Your task to perform on an android device: Do I have any events today? Image 0: 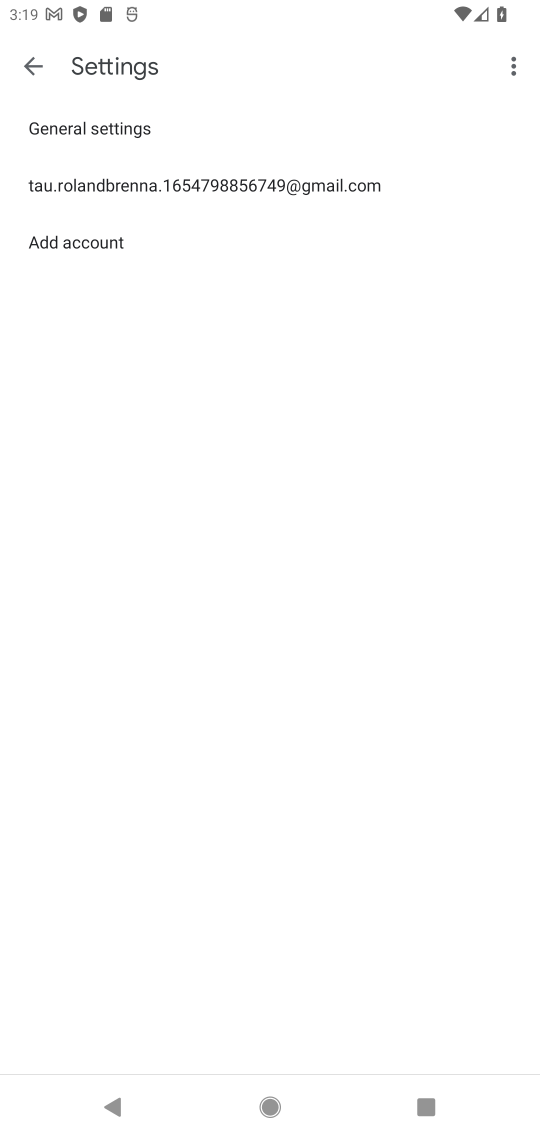
Step 0: press home button
Your task to perform on an android device: Do I have any events today? Image 1: 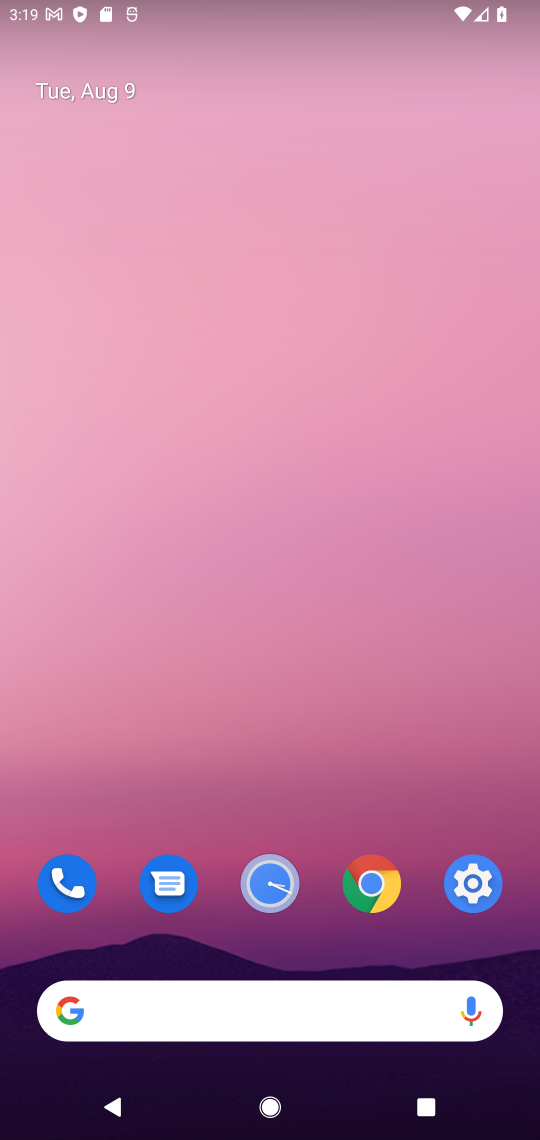
Step 1: drag from (328, 965) to (279, 327)
Your task to perform on an android device: Do I have any events today? Image 2: 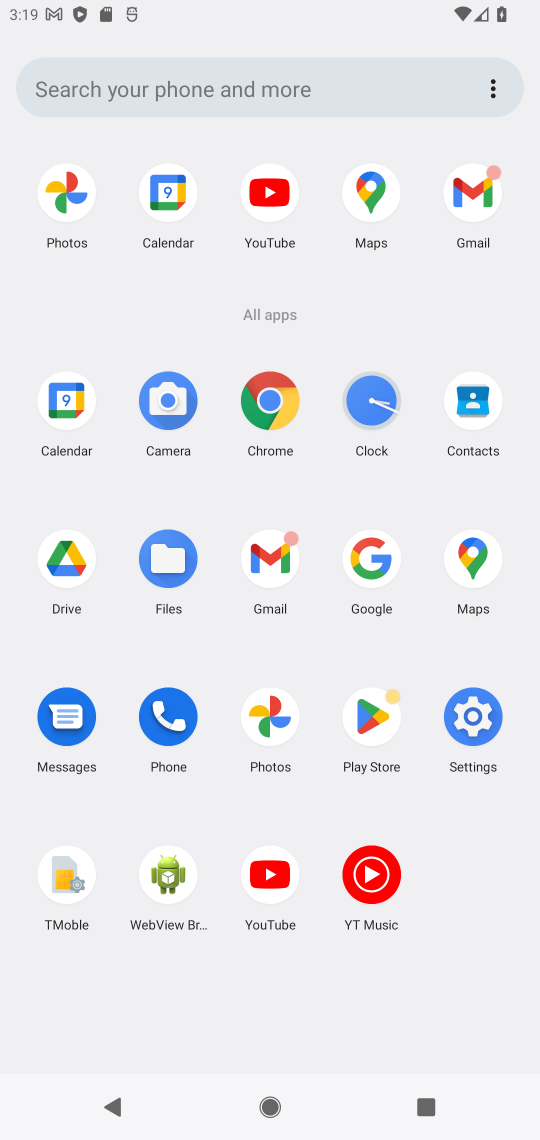
Step 2: click (62, 402)
Your task to perform on an android device: Do I have any events today? Image 3: 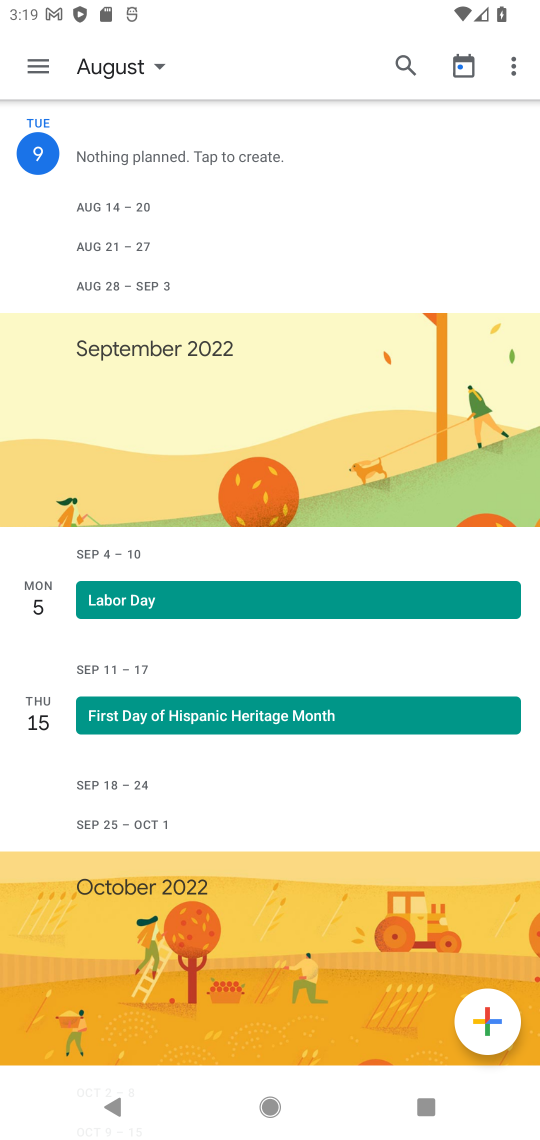
Step 3: click (27, 65)
Your task to perform on an android device: Do I have any events today? Image 4: 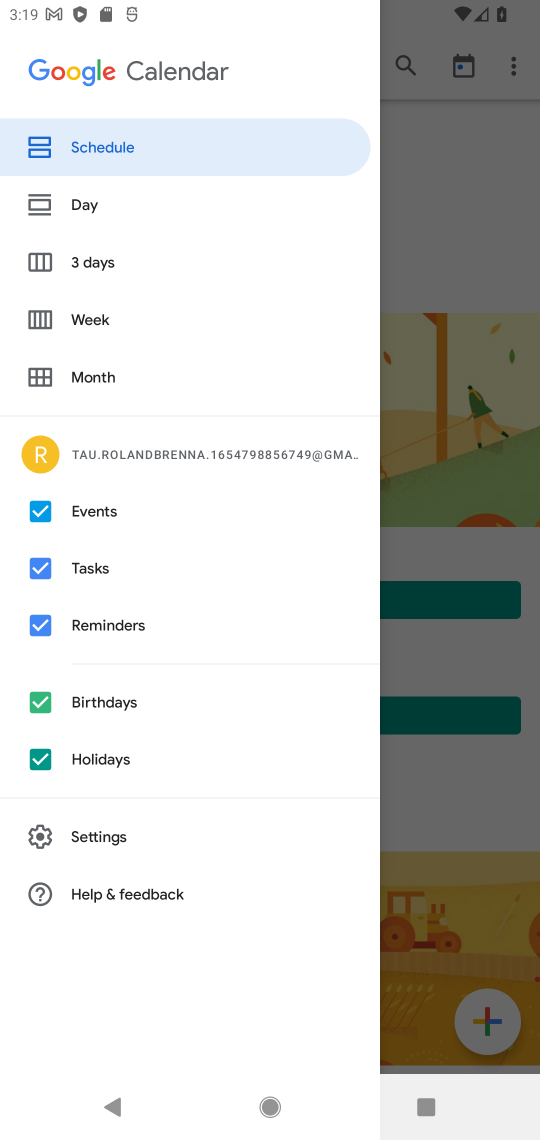
Step 4: click (91, 375)
Your task to perform on an android device: Do I have any events today? Image 5: 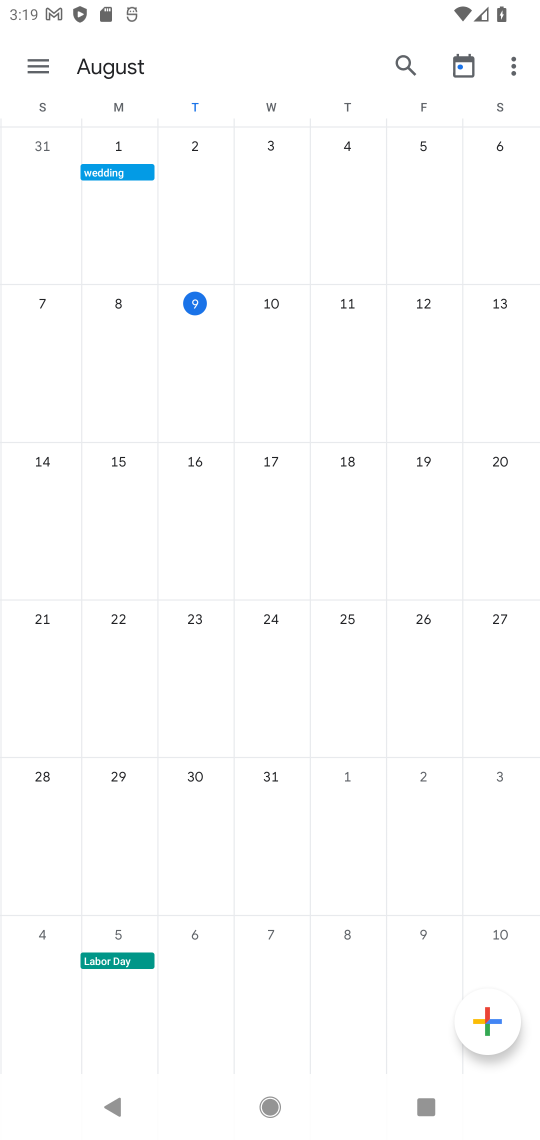
Step 5: click (204, 376)
Your task to perform on an android device: Do I have any events today? Image 6: 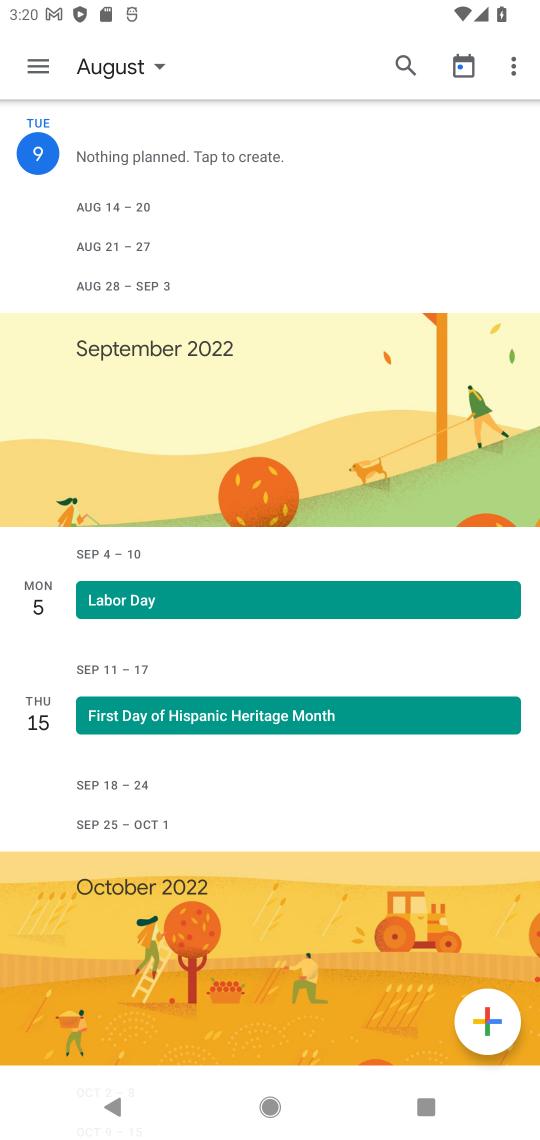
Step 6: task complete